Your task to perform on an android device: change text size in settings app Image 0: 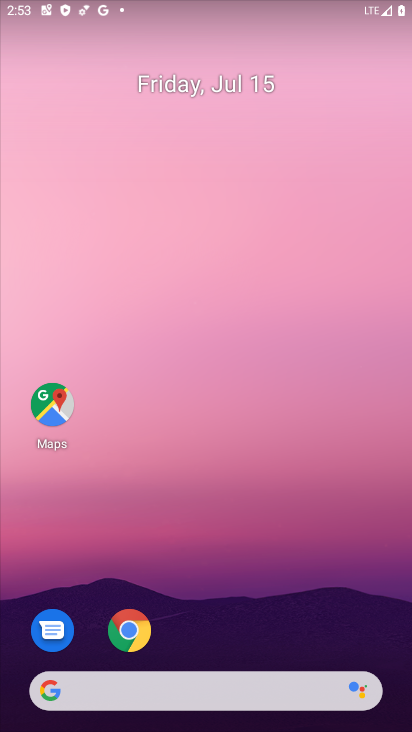
Step 0: drag from (180, 690) to (188, 204)
Your task to perform on an android device: change text size in settings app Image 1: 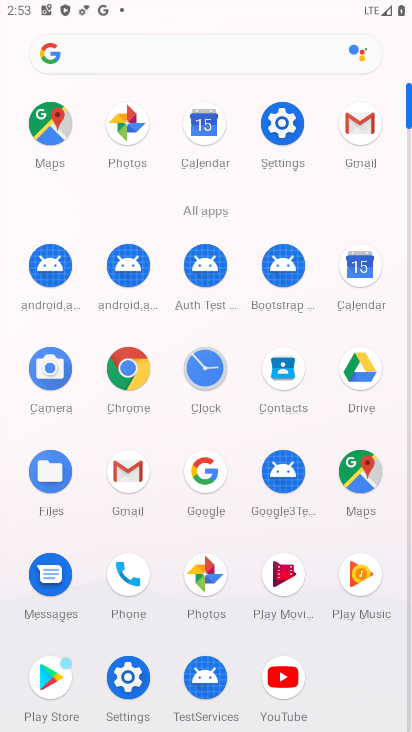
Step 1: click (133, 676)
Your task to perform on an android device: change text size in settings app Image 2: 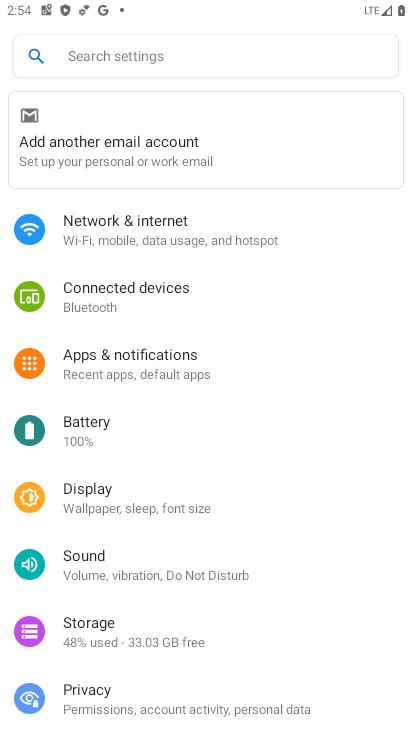
Step 2: click (111, 492)
Your task to perform on an android device: change text size in settings app Image 3: 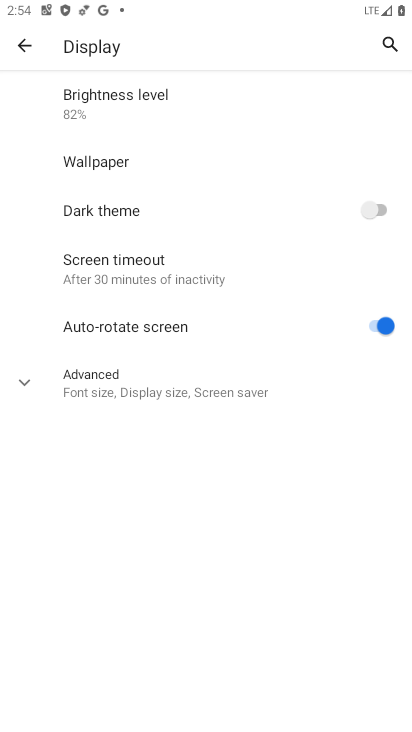
Step 3: click (121, 387)
Your task to perform on an android device: change text size in settings app Image 4: 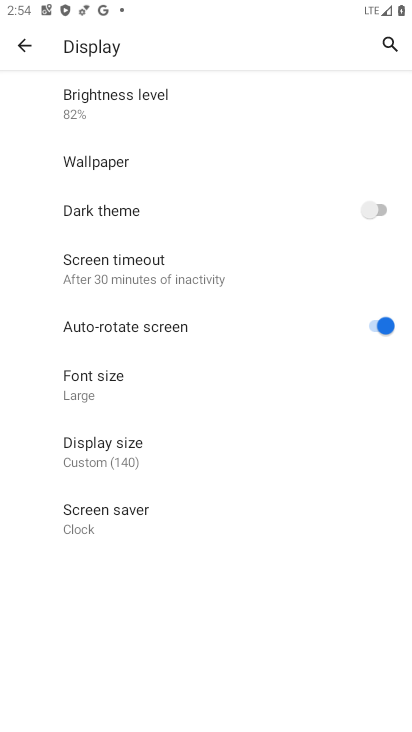
Step 4: click (101, 389)
Your task to perform on an android device: change text size in settings app Image 5: 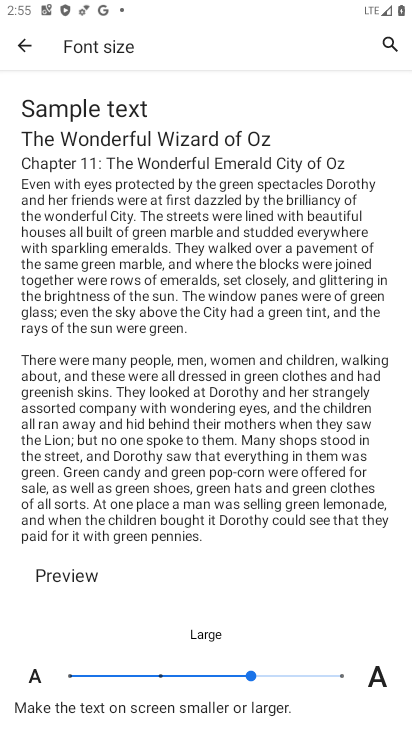
Step 5: click (343, 670)
Your task to perform on an android device: change text size in settings app Image 6: 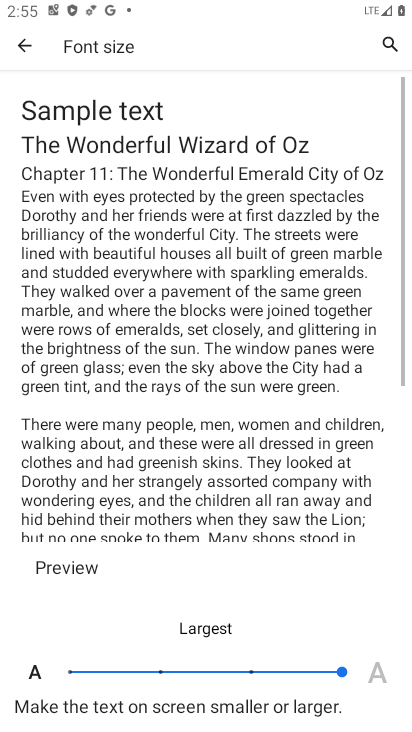
Step 6: task complete